Your task to perform on an android device: Check the weather Image 0: 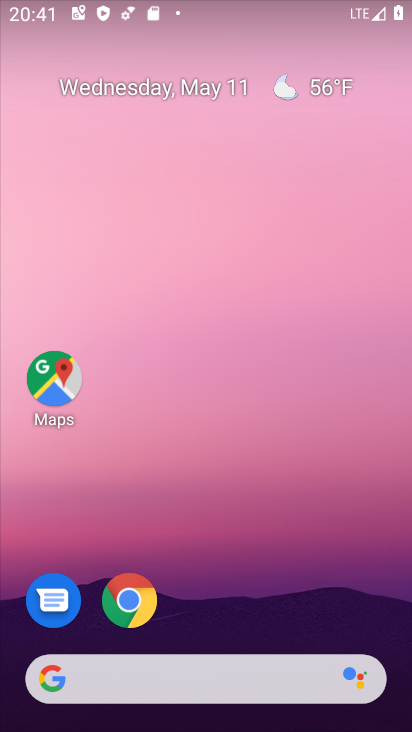
Step 0: drag from (237, 575) to (243, 32)
Your task to perform on an android device: Check the weather Image 1: 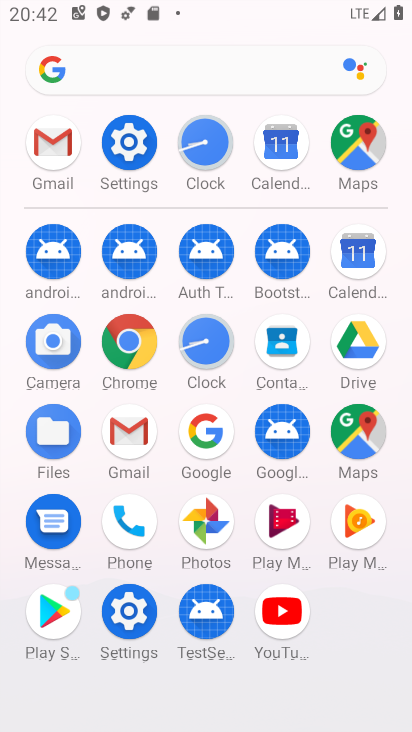
Step 1: click (201, 433)
Your task to perform on an android device: Check the weather Image 2: 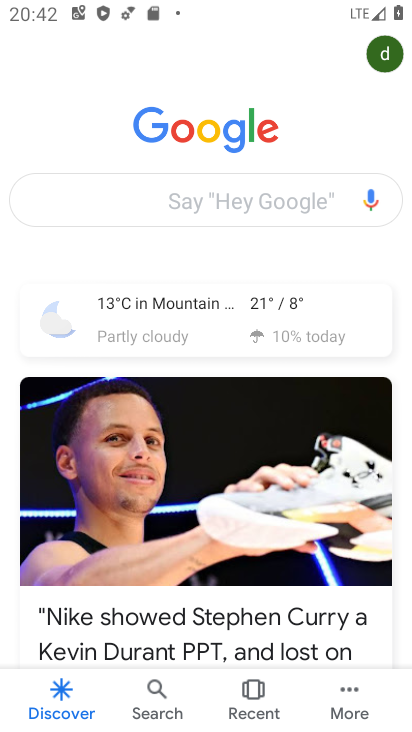
Step 2: click (201, 205)
Your task to perform on an android device: Check the weather Image 3: 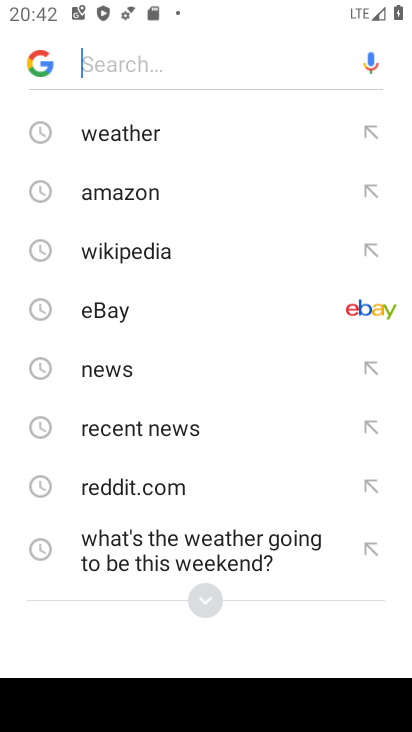
Step 3: click (125, 136)
Your task to perform on an android device: Check the weather Image 4: 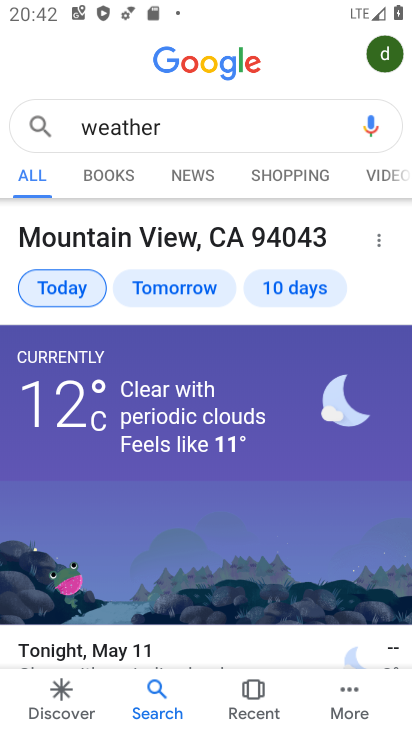
Step 4: task complete